Your task to perform on an android device: Open Youtube and go to the subscriptions tab Image 0: 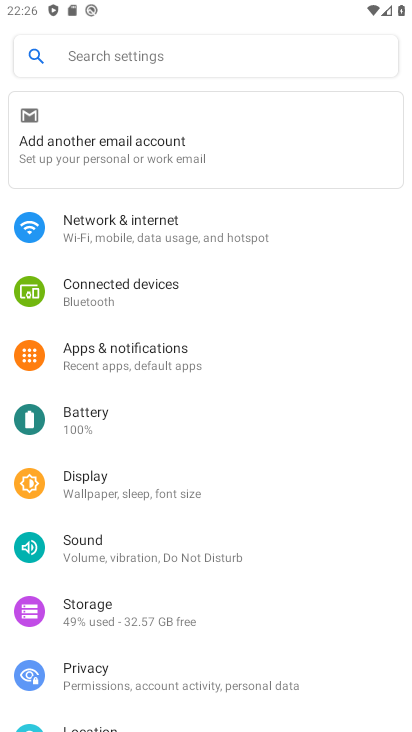
Step 0: press home button
Your task to perform on an android device: Open Youtube and go to the subscriptions tab Image 1: 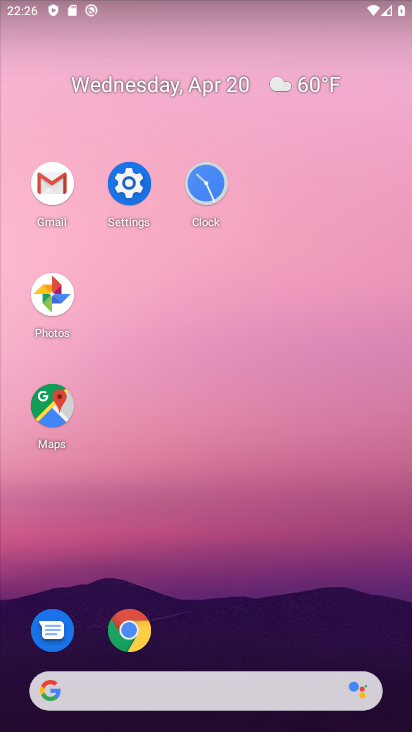
Step 1: drag from (236, 651) to (219, 155)
Your task to perform on an android device: Open Youtube and go to the subscriptions tab Image 2: 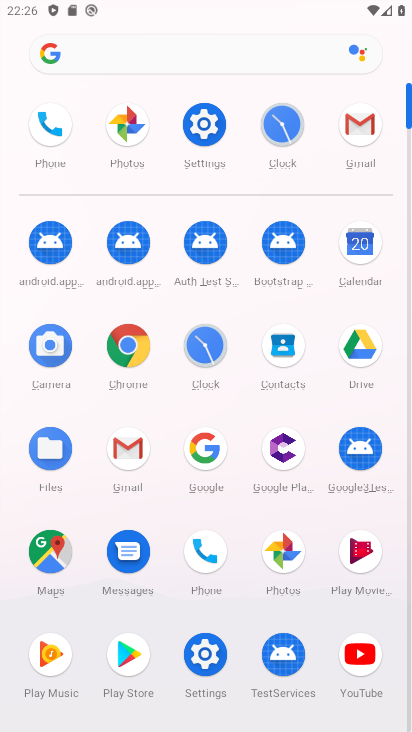
Step 2: drag from (160, 549) to (182, 228)
Your task to perform on an android device: Open Youtube and go to the subscriptions tab Image 3: 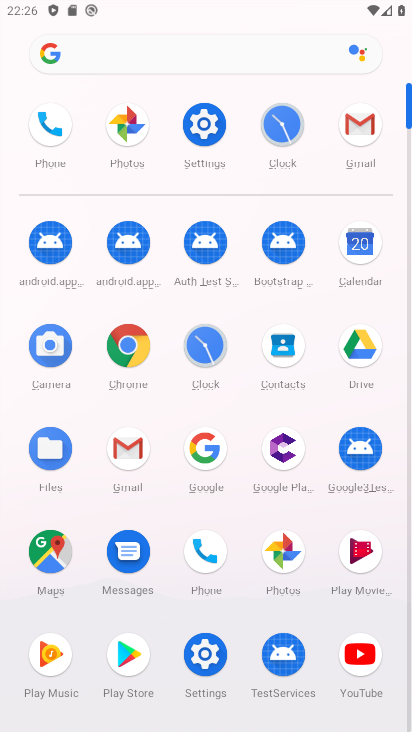
Step 3: drag from (364, 655) to (247, 429)
Your task to perform on an android device: Open Youtube and go to the subscriptions tab Image 4: 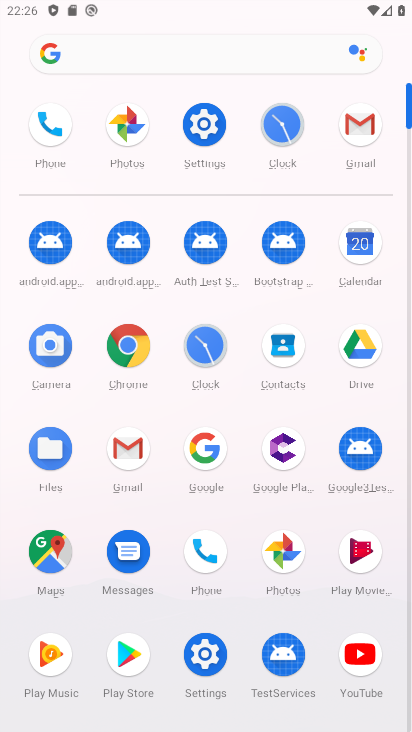
Step 4: drag from (363, 661) to (145, 313)
Your task to perform on an android device: Open Youtube and go to the subscriptions tab Image 5: 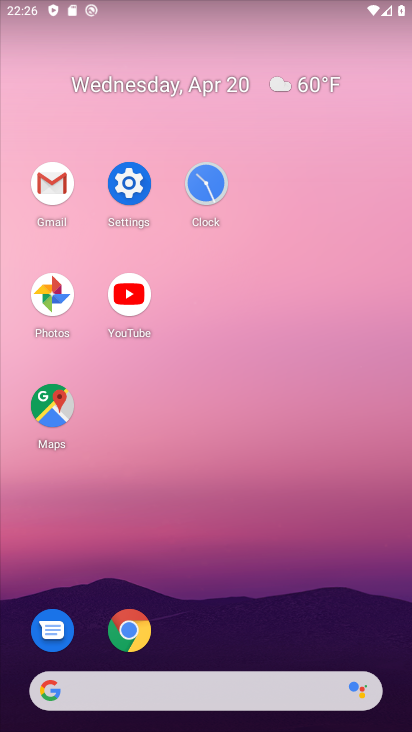
Step 5: click (130, 303)
Your task to perform on an android device: Open Youtube and go to the subscriptions tab Image 6: 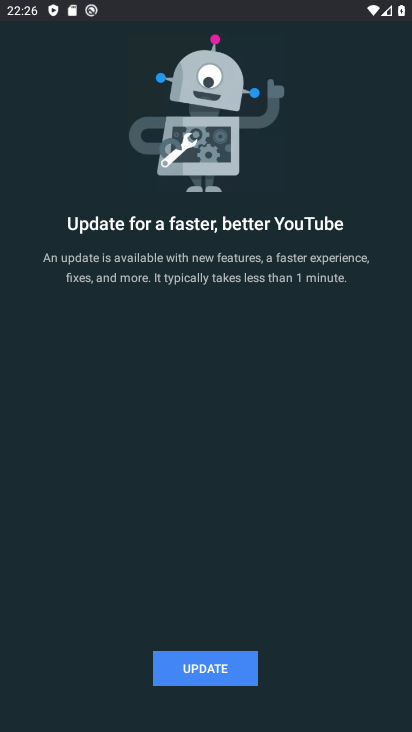
Step 6: click (229, 665)
Your task to perform on an android device: Open Youtube and go to the subscriptions tab Image 7: 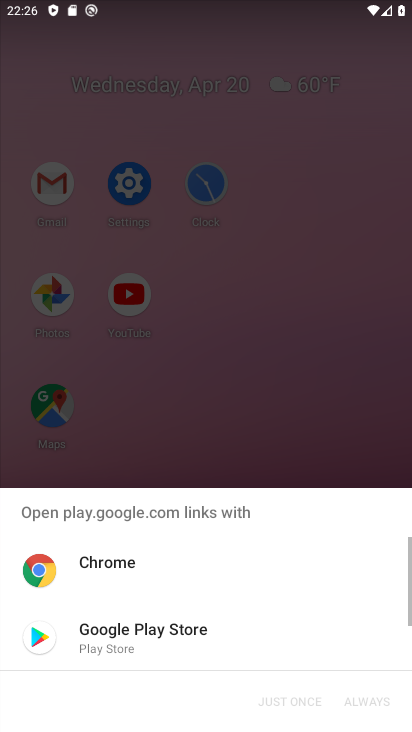
Step 7: click (218, 619)
Your task to perform on an android device: Open Youtube and go to the subscriptions tab Image 8: 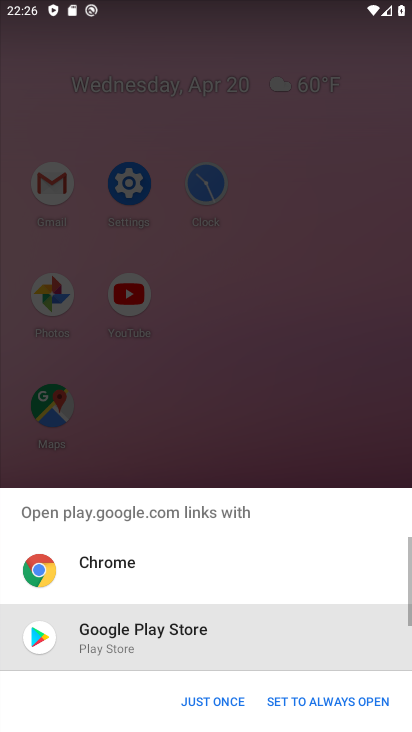
Step 8: click (218, 619)
Your task to perform on an android device: Open Youtube and go to the subscriptions tab Image 9: 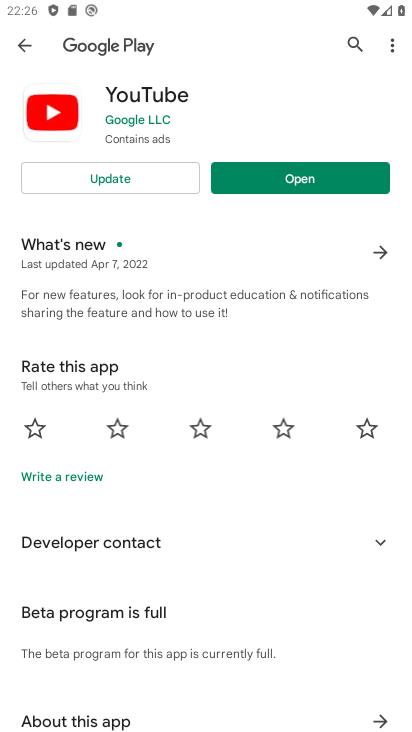
Step 9: click (322, 180)
Your task to perform on an android device: Open Youtube and go to the subscriptions tab Image 10: 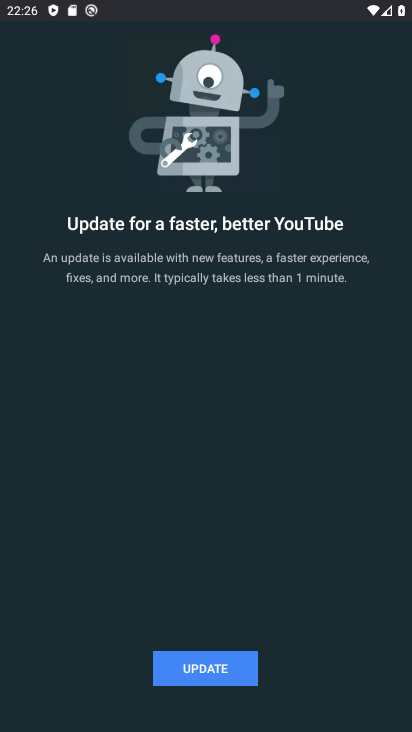
Step 10: click (207, 669)
Your task to perform on an android device: Open Youtube and go to the subscriptions tab Image 11: 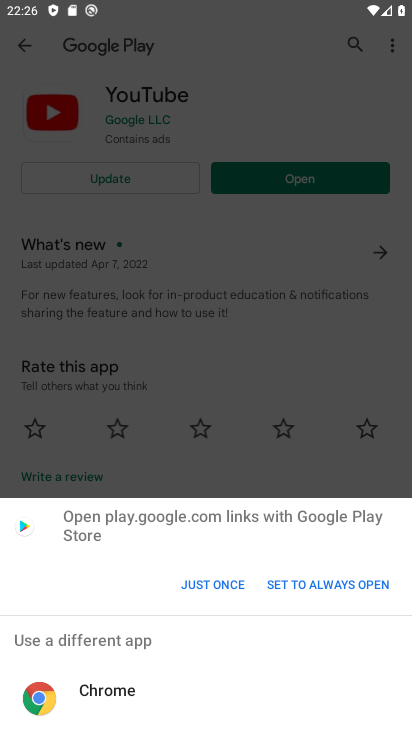
Step 11: click (102, 246)
Your task to perform on an android device: Open Youtube and go to the subscriptions tab Image 12: 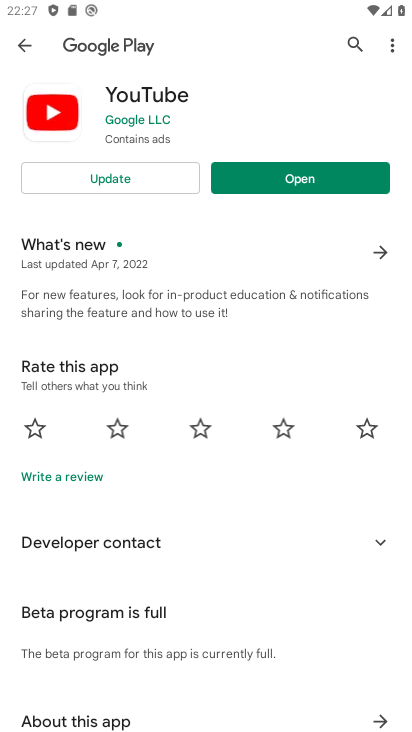
Step 12: click (102, 245)
Your task to perform on an android device: Open Youtube and go to the subscriptions tab Image 13: 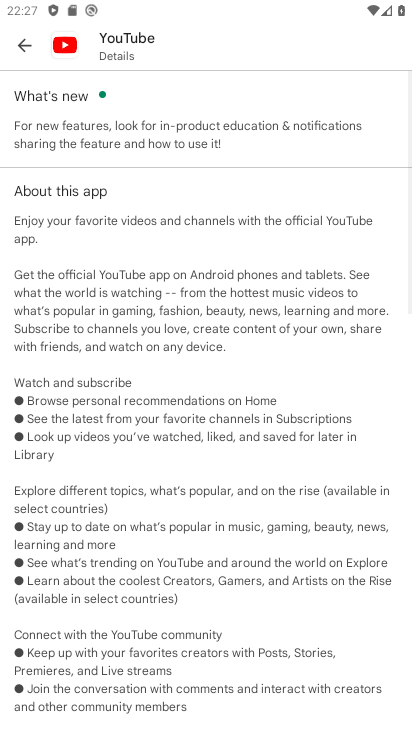
Step 13: click (30, 48)
Your task to perform on an android device: Open Youtube and go to the subscriptions tab Image 14: 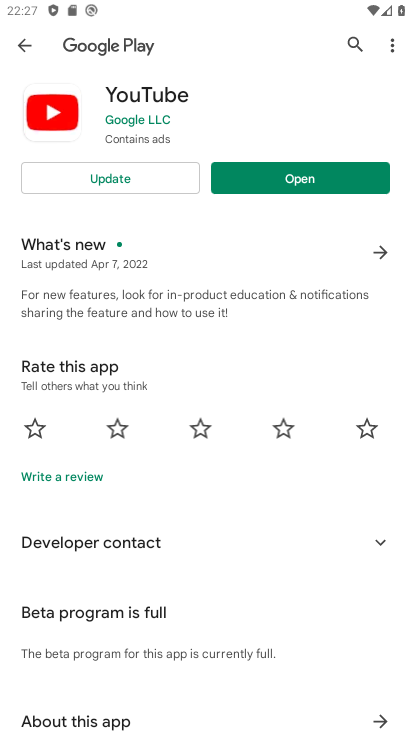
Step 14: click (125, 188)
Your task to perform on an android device: Open Youtube and go to the subscriptions tab Image 15: 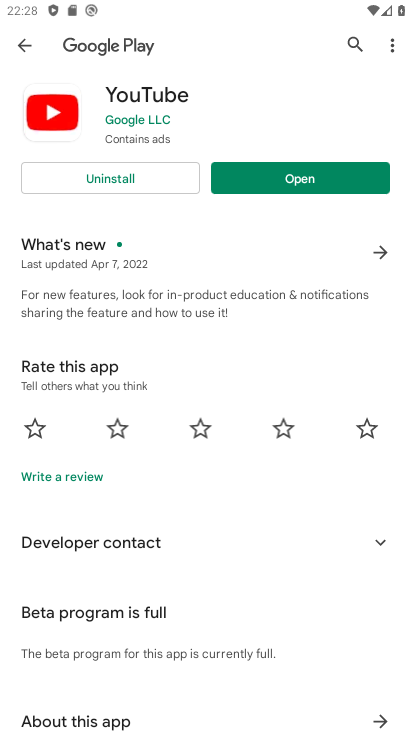
Step 15: click (300, 175)
Your task to perform on an android device: Open Youtube and go to the subscriptions tab Image 16: 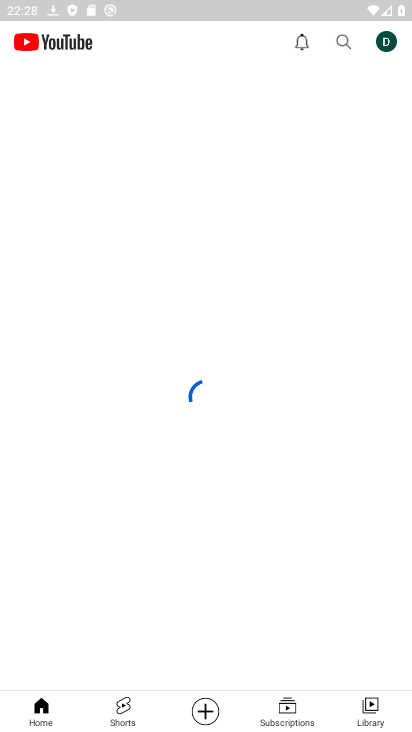
Step 16: click (287, 718)
Your task to perform on an android device: Open Youtube and go to the subscriptions tab Image 17: 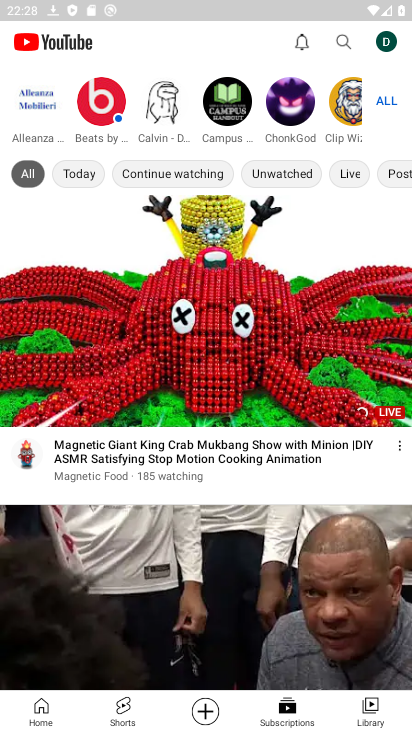
Step 17: task complete